Your task to perform on an android device: toggle priority inbox in the gmail app Image 0: 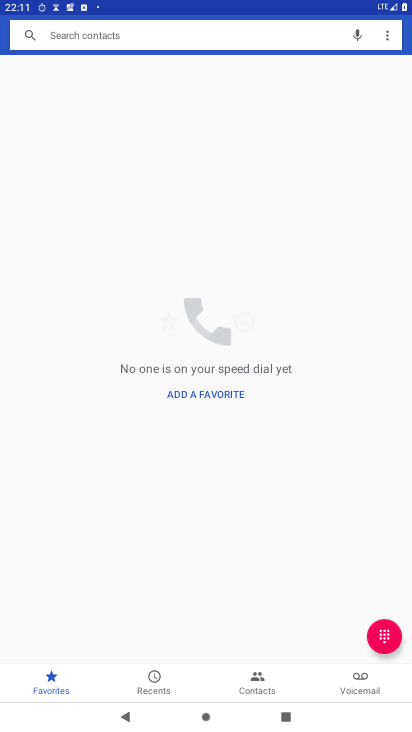
Step 0: press home button
Your task to perform on an android device: toggle priority inbox in the gmail app Image 1: 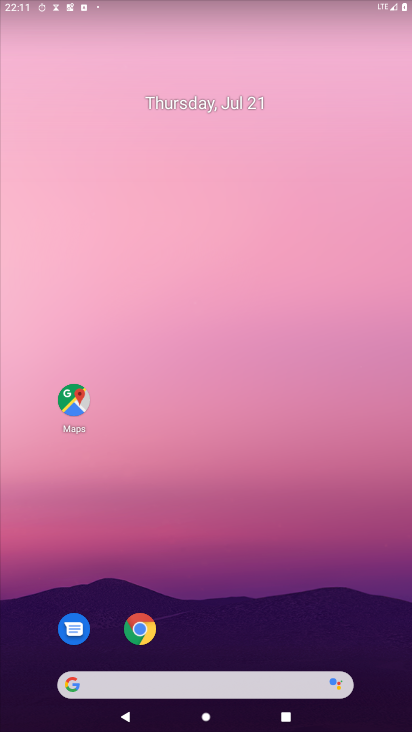
Step 1: drag from (225, 562) to (234, 108)
Your task to perform on an android device: toggle priority inbox in the gmail app Image 2: 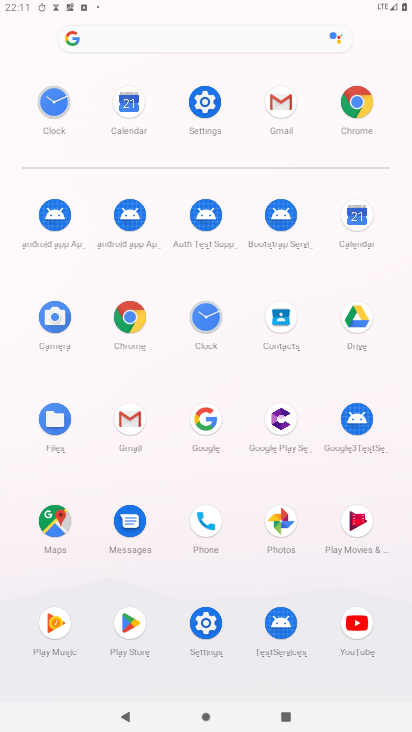
Step 2: click (125, 433)
Your task to perform on an android device: toggle priority inbox in the gmail app Image 3: 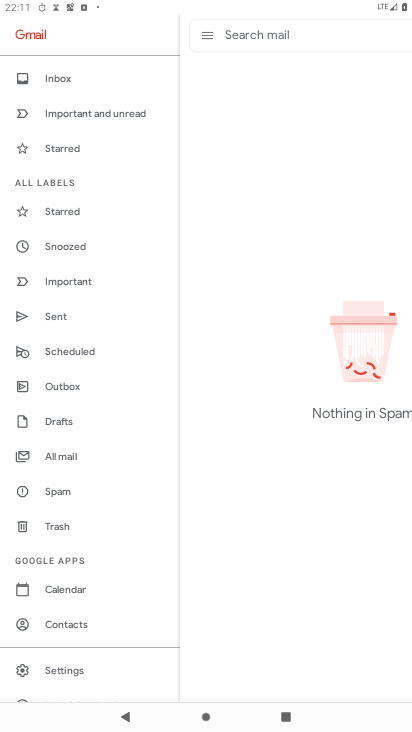
Step 3: drag from (104, 655) to (111, 353)
Your task to perform on an android device: toggle priority inbox in the gmail app Image 4: 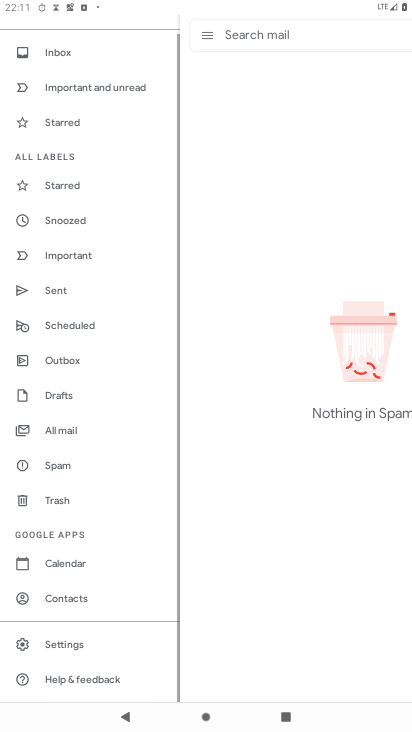
Step 4: click (92, 643)
Your task to perform on an android device: toggle priority inbox in the gmail app Image 5: 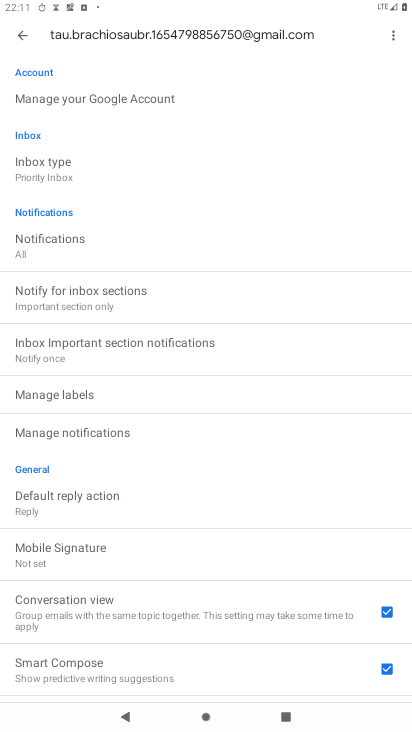
Step 5: click (130, 180)
Your task to perform on an android device: toggle priority inbox in the gmail app Image 6: 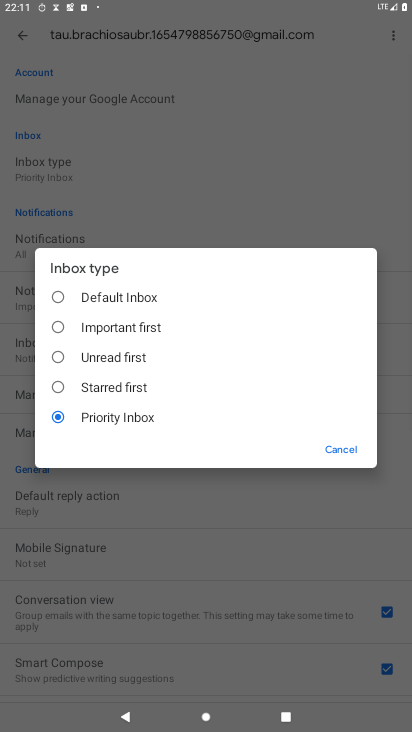
Step 6: click (139, 305)
Your task to perform on an android device: toggle priority inbox in the gmail app Image 7: 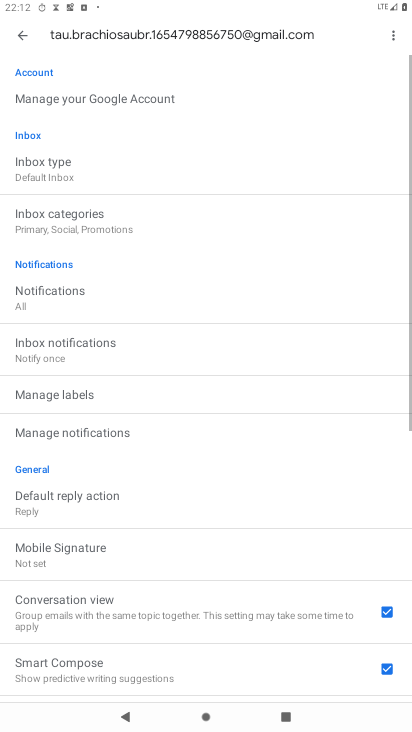
Step 7: task complete